Your task to perform on an android device: turn off sleep mode Image 0: 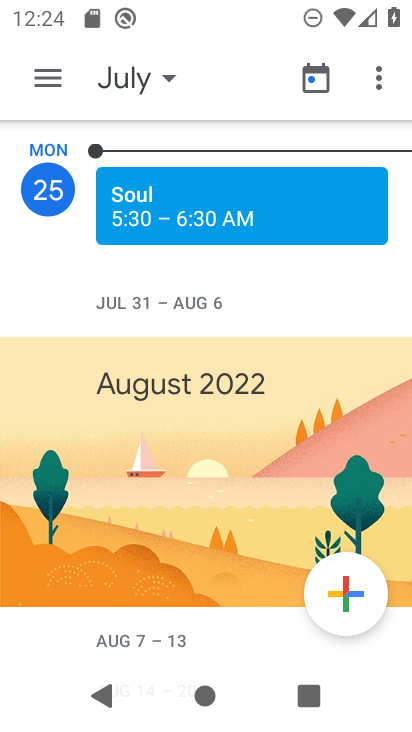
Step 0: press back button
Your task to perform on an android device: turn off sleep mode Image 1: 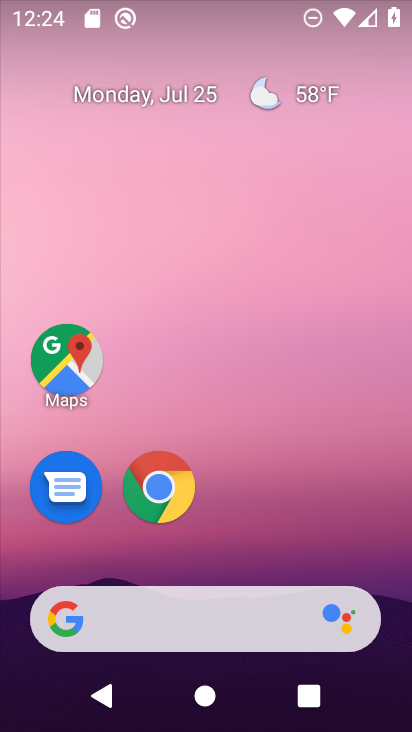
Step 1: drag from (237, 551) to (270, 9)
Your task to perform on an android device: turn off sleep mode Image 2: 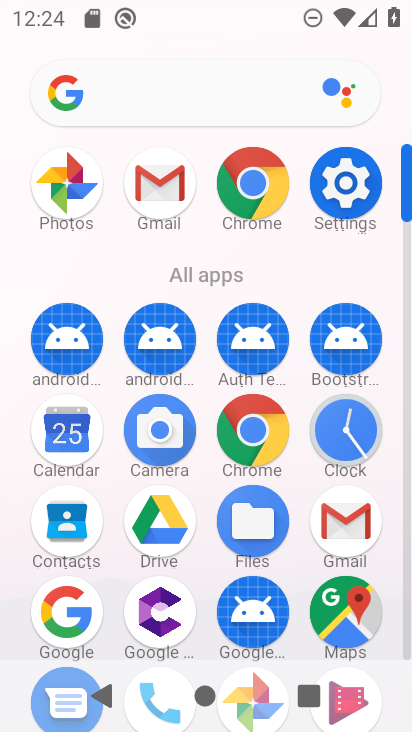
Step 2: click (350, 187)
Your task to perform on an android device: turn off sleep mode Image 3: 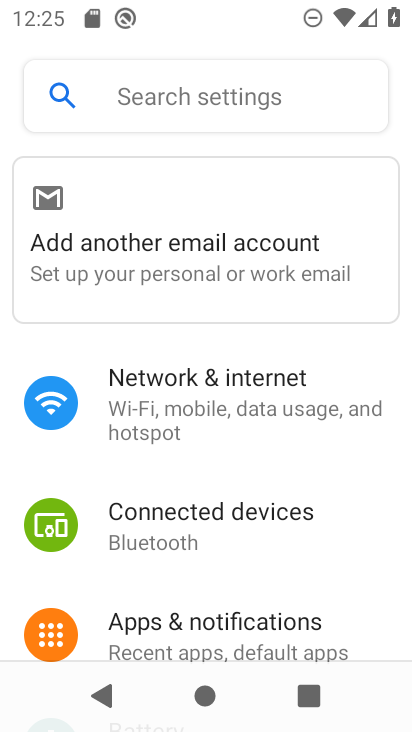
Step 3: click (156, 91)
Your task to perform on an android device: turn off sleep mode Image 4: 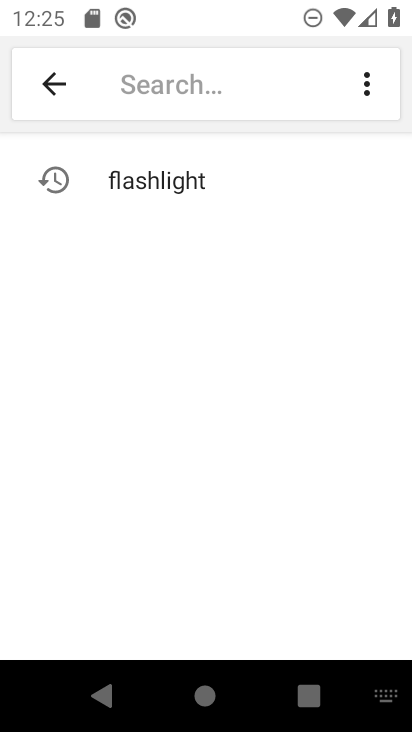
Step 4: type "sleep mode"
Your task to perform on an android device: turn off sleep mode Image 5: 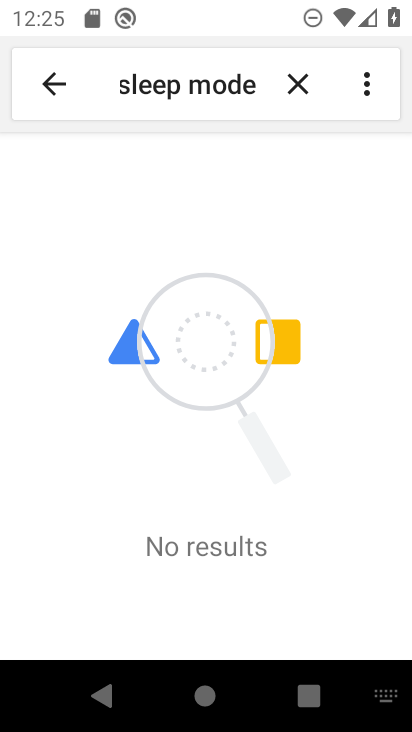
Step 5: task complete